Your task to perform on an android device: Open network settings Image 0: 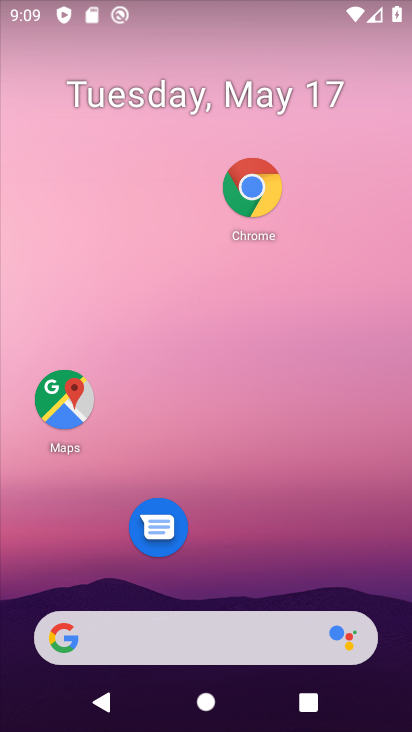
Step 0: drag from (289, 588) to (295, 80)
Your task to perform on an android device: Open network settings Image 1: 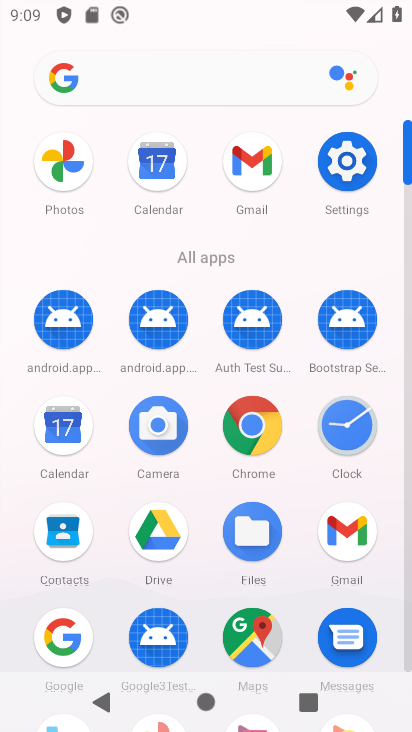
Step 1: click (354, 173)
Your task to perform on an android device: Open network settings Image 2: 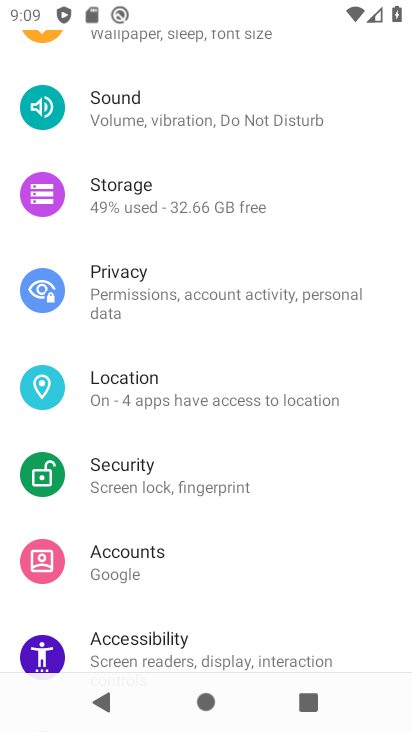
Step 2: drag from (264, 250) to (210, 595)
Your task to perform on an android device: Open network settings Image 3: 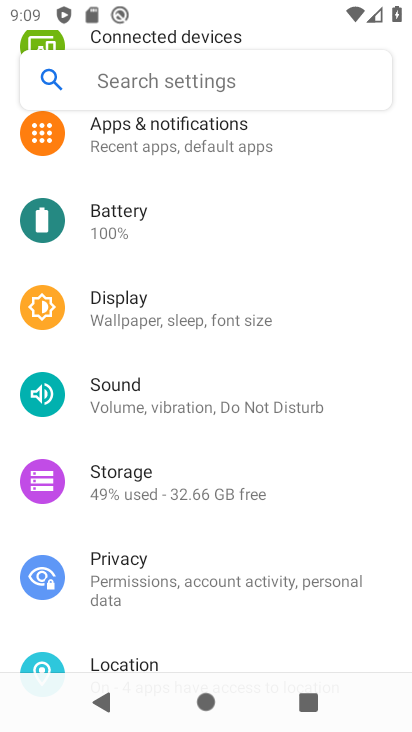
Step 3: drag from (157, 164) to (153, 465)
Your task to perform on an android device: Open network settings Image 4: 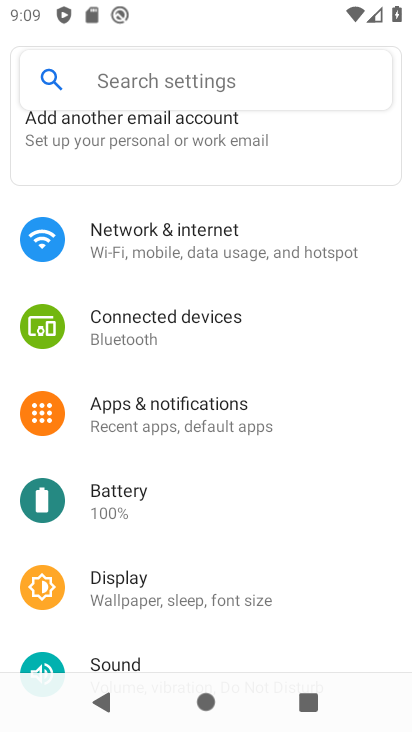
Step 4: click (214, 246)
Your task to perform on an android device: Open network settings Image 5: 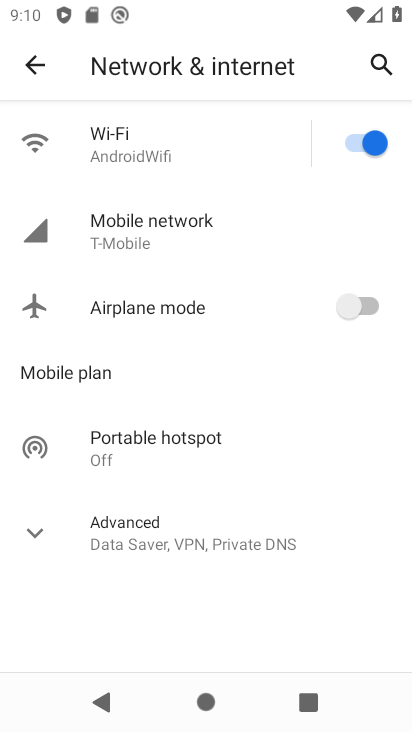
Step 5: task complete